Your task to perform on an android device: Go to settings Image 0: 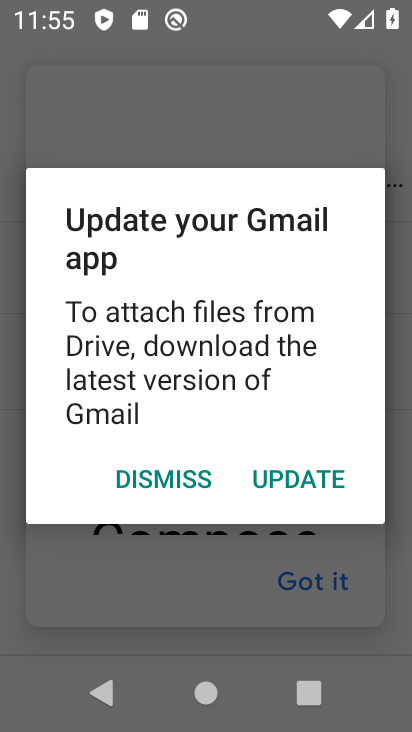
Step 0: press home button
Your task to perform on an android device: Go to settings Image 1: 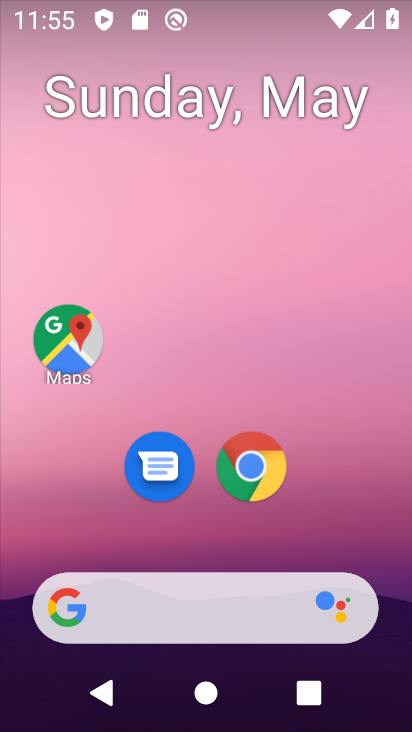
Step 1: drag from (332, 525) to (345, 53)
Your task to perform on an android device: Go to settings Image 2: 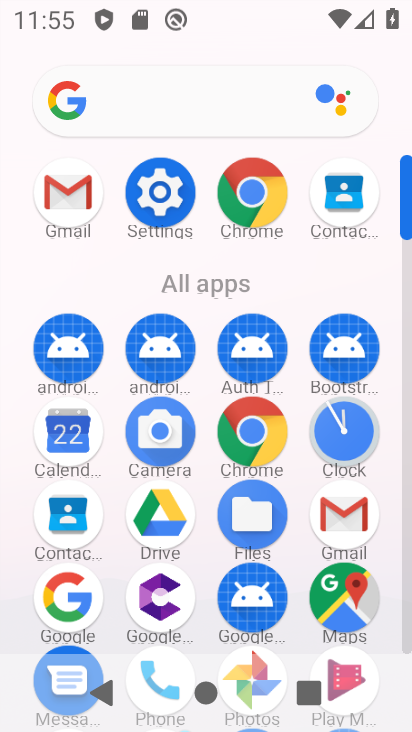
Step 2: click (178, 204)
Your task to perform on an android device: Go to settings Image 3: 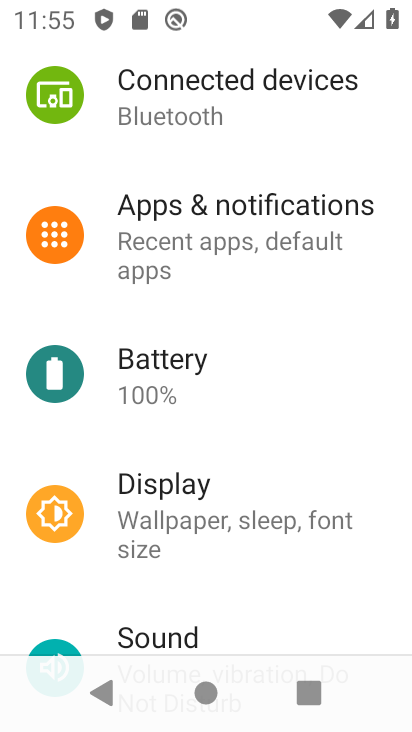
Step 3: task complete